Your task to perform on an android device: turn on airplane mode Image 0: 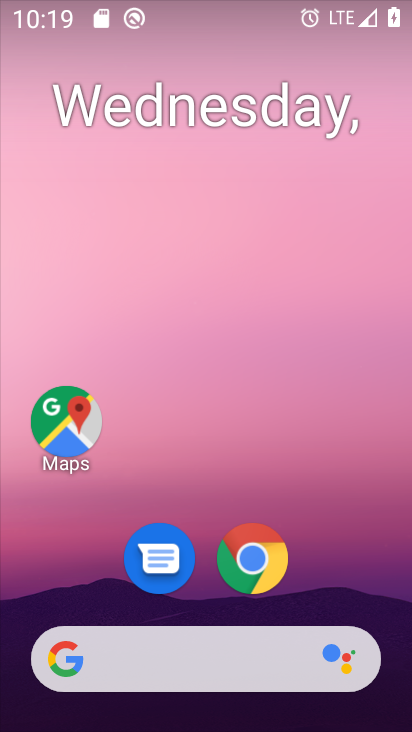
Step 0: drag from (364, 598) to (373, 172)
Your task to perform on an android device: turn on airplane mode Image 1: 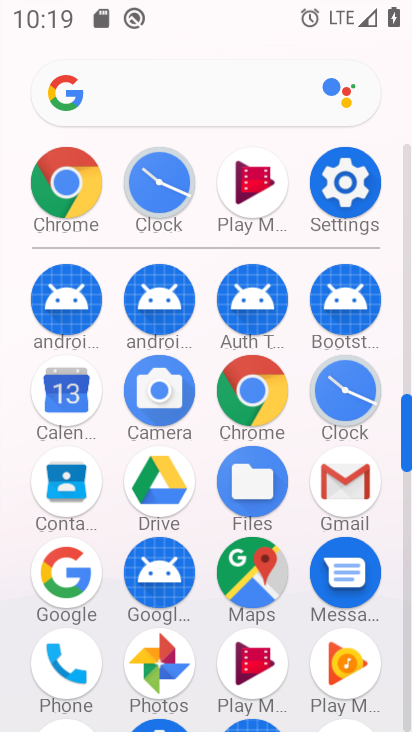
Step 1: click (369, 204)
Your task to perform on an android device: turn on airplane mode Image 2: 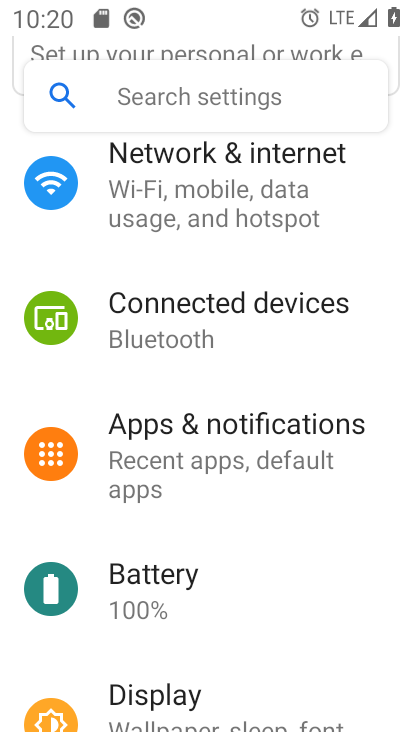
Step 2: drag from (358, 508) to (365, 422)
Your task to perform on an android device: turn on airplane mode Image 3: 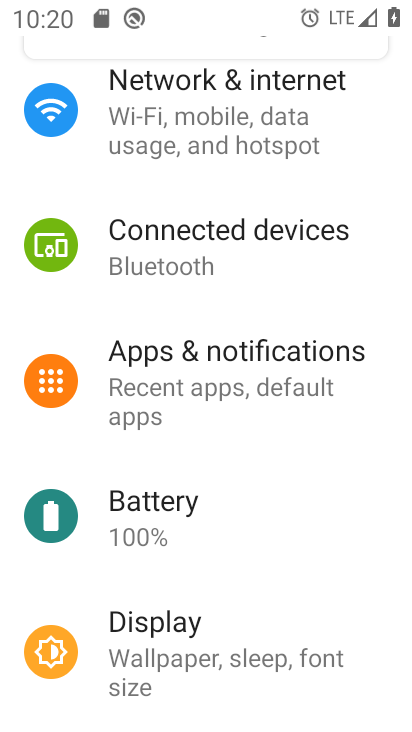
Step 3: drag from (357, 526) to (352, 427)
Your task to perform on an android device: turn on airplane mode Image 4: 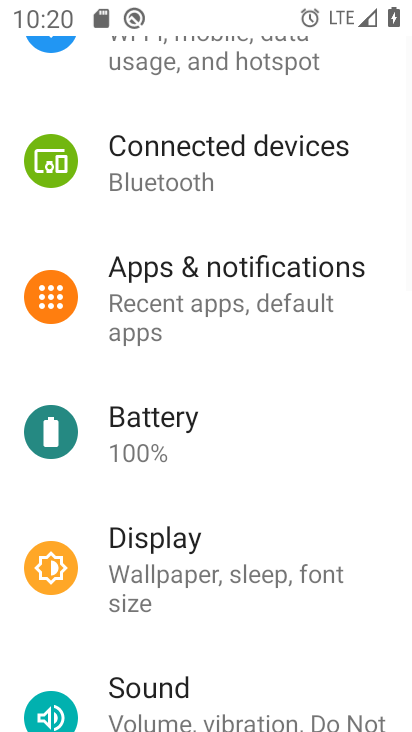
Step 4: drag from (354, 517) to (352, 438)
Your task to perform on an android device: turn on airplane mode Image 5: 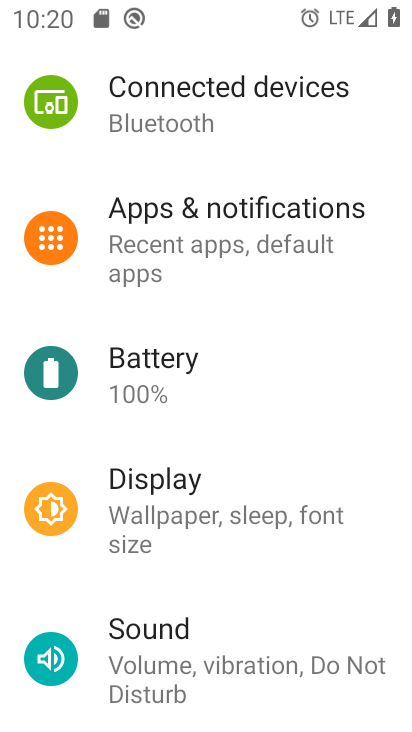
Step 5: drag from (348, 541) to (347, 439)
Your task to perform on an android device: turn on airplane mode Image 6: 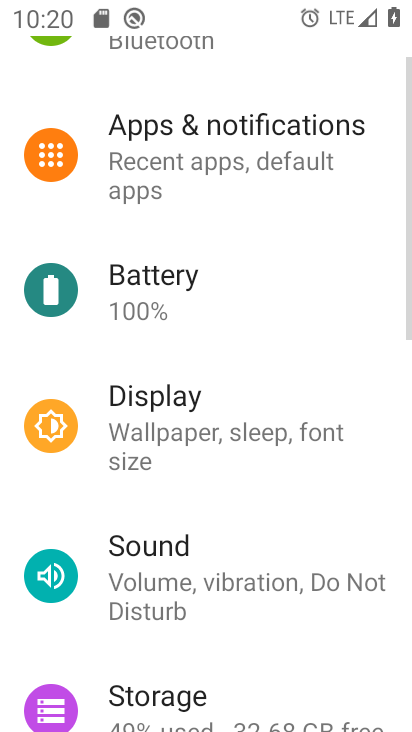
Step 6: drag from (357, 517) to (365, 407)
Your task to perform on an android device: turn on airplane mode Image 7: 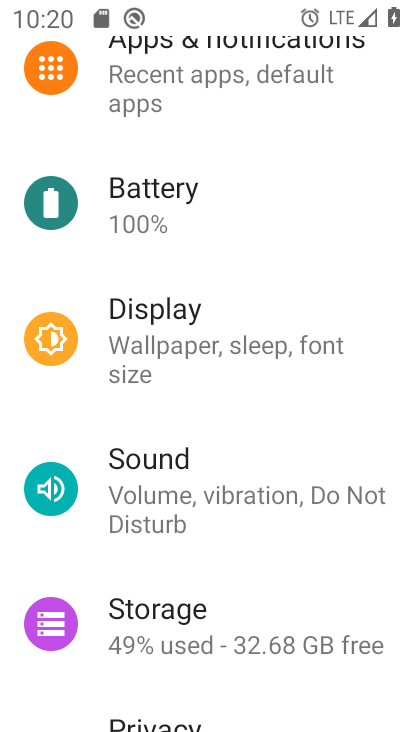
Step 7: drag from (373, 525) to (385, 404)
Your task to perform on an android device: turn on airplane mode Image 8: 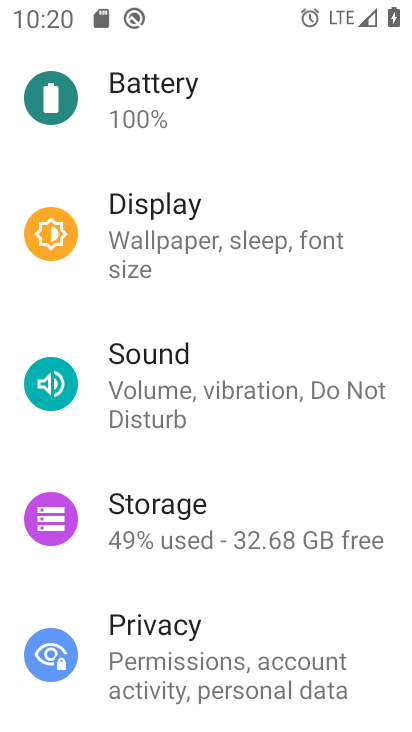
Step 8: drag from (357, 567) to (369, 436)
Your task to perform on an android device: turn on airplane mode Image 9: 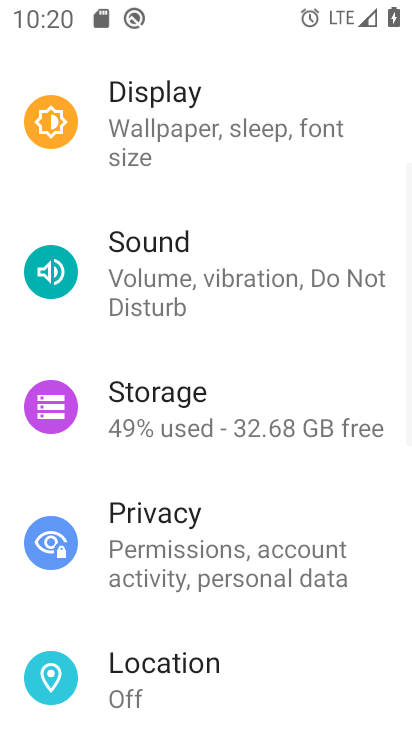
Step 9: drag from (363, 541) to (366, 452)
Your task to perform on an android device: turn on airplane mode Image 10: 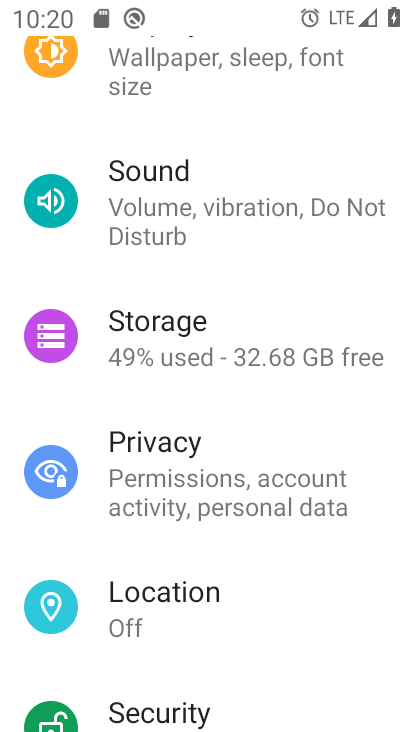
Step 10: drag from (363, 390) to (371, 490)
Your task to perform on an android device: turn on airplane mode Image 11: 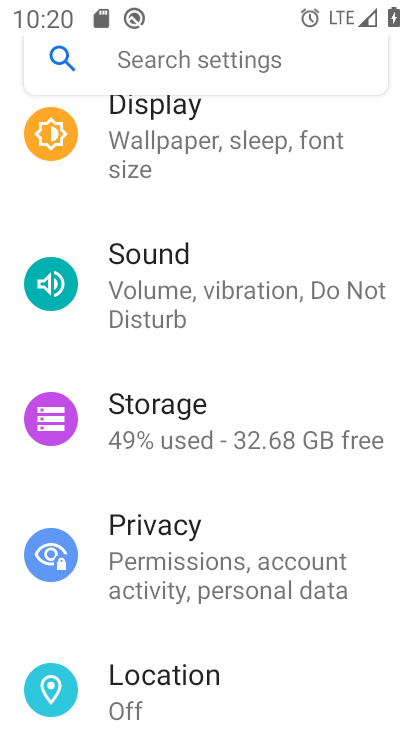
Step 11: drag from (378, 388) to (373, 498)
Your task to perform on an android device: turn on airplane mode Image 12: 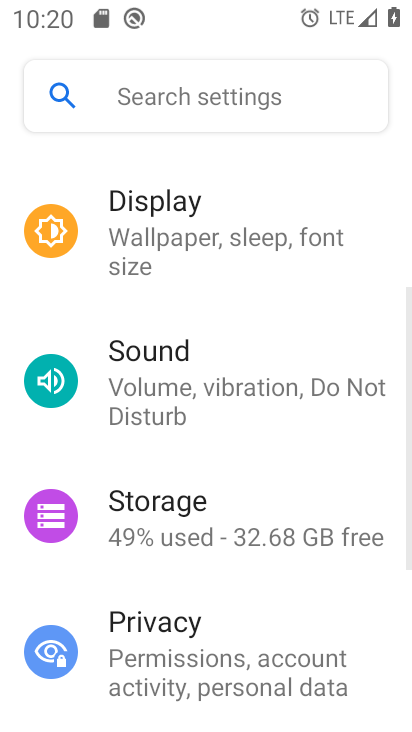
Step 12: drag from (368, 345) to (365, 495)
Your task to perform on an android device: turn on airplane mode Image 13: 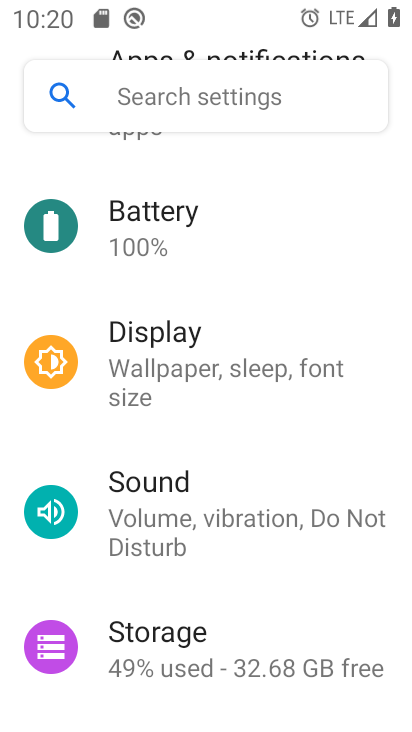
Step 13: drag from (359, 336) to (371, 456)
Your task to perform on an android device: turn on airplane mode Image 14: 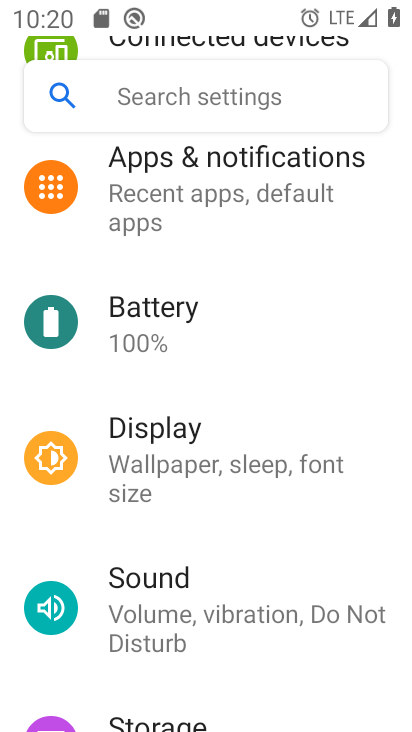
Step 14: drag from (361, 302) to (368, 485)
Your task to perform on an android device: turn on airplane mode Image 15: 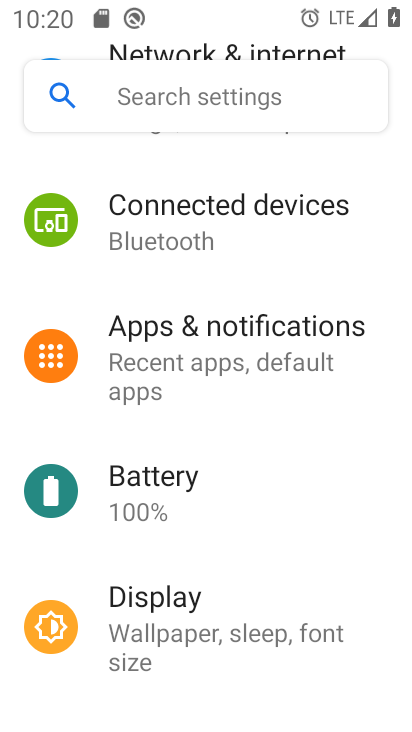
Step 15: drag from (370, 283) to (369, 485)
Your task to perform on an android device: turn on airplane mode Image 16: 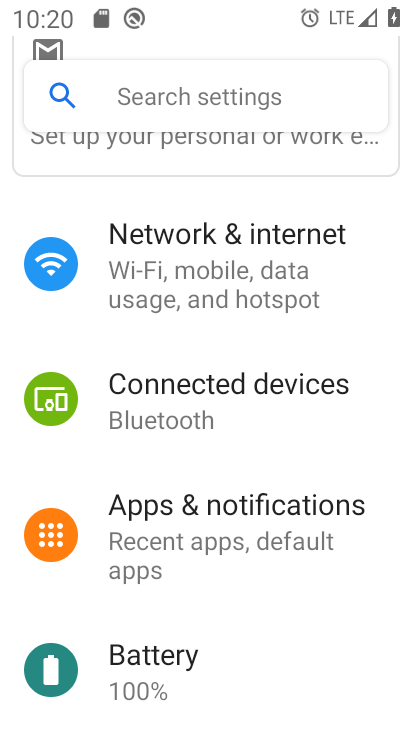
Step 16: drag from (337, 274) to (340, 441)
Your task to perform on an android device: turn on airplane mode Image 17: 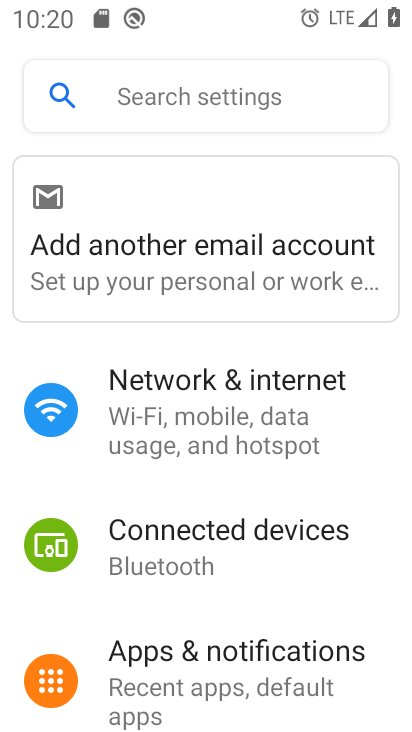
Step 17: click (248, 416)
Your task to perform on an android device: turn on airplane mode Image 18: 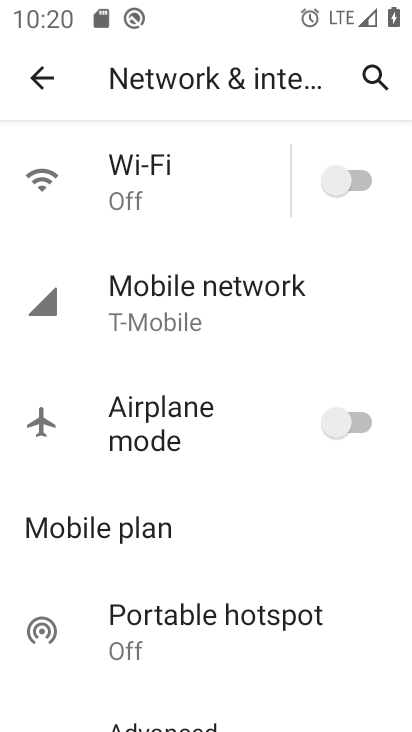
Step 18: click (319, 422)
Your task to perform on an android device: turn on airplane mode Image 19: 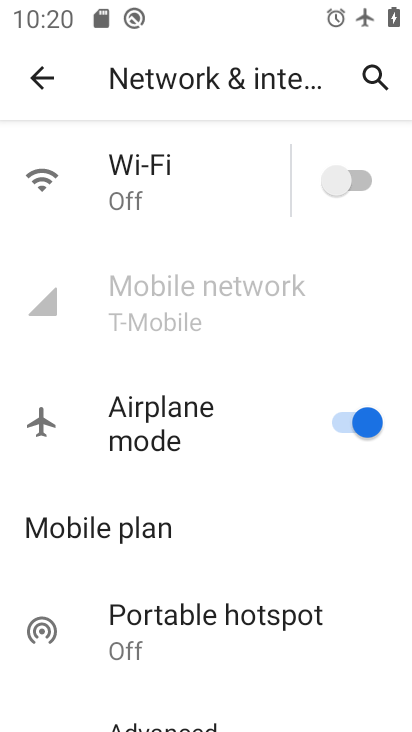
Step 19: task complete